Your task to perform on an android device: Go to Reddit.com Image 0: 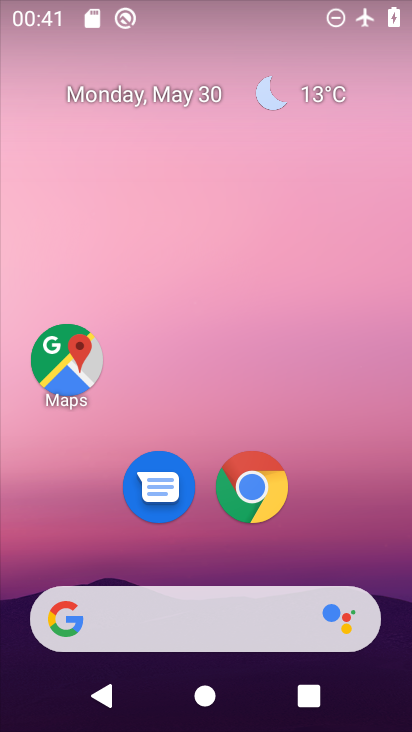
Step 0: click (236, 489)
Your task to perform on an android device: Go to Reddit.com Image 1: 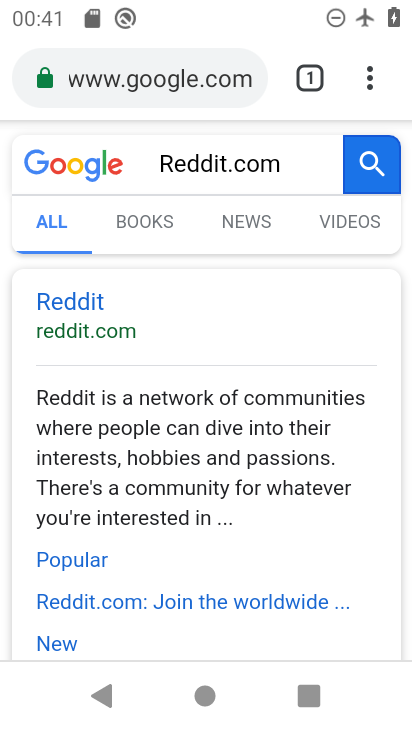
Step 1: task complete